Your task to perform on an android device: When is my next meeting? Image 0: 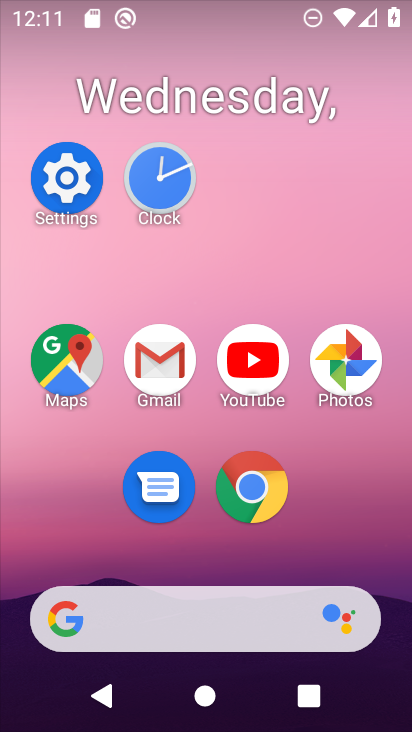
Step 0: drag from (354, 515) to (313, 30)
Your task to perform on an android device: When is my next meeting? Image 1: 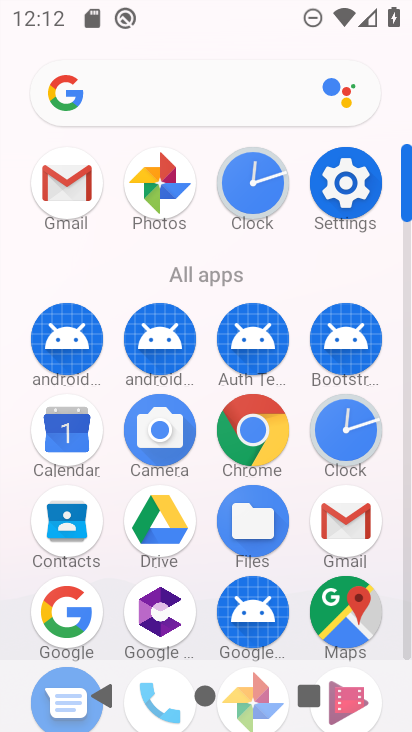
Step 1: drag from (73, 435) to (239, 210)
Your task to perform on an android device: When is my next meeting? Image 2: 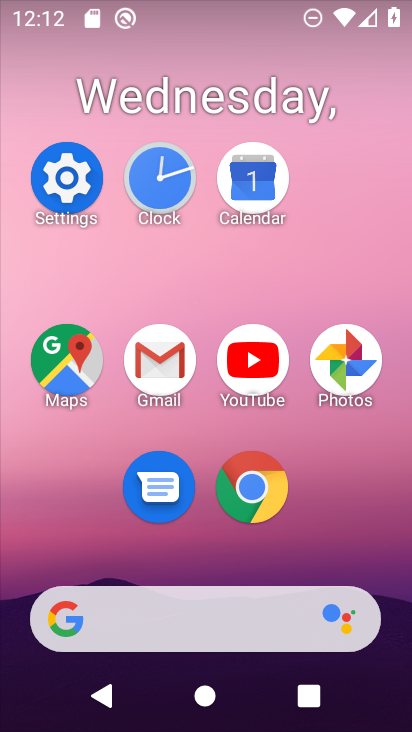
Step 2: click (239, 210)
Your task to perform on an android device: When is my next meeting? Image 3: 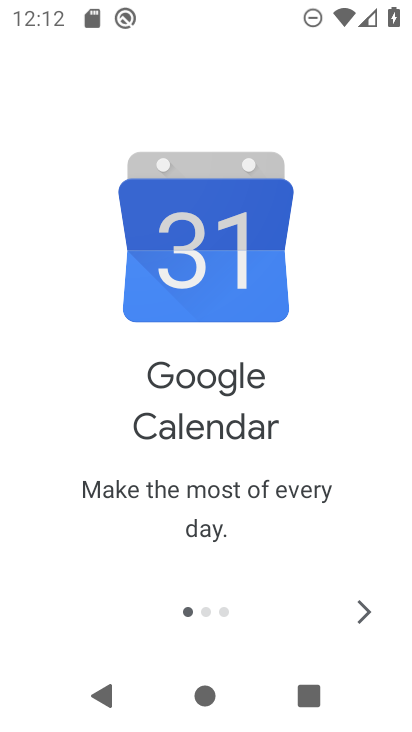
Step 3: click (376, 612)
Your task to perform on an android device: When is my next meeting? Image 4: 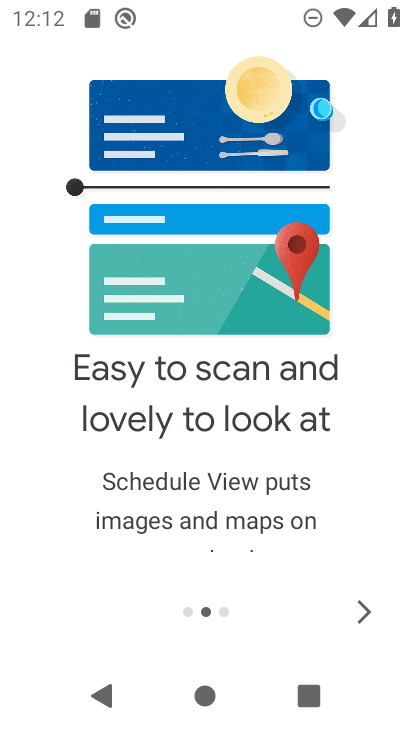
Step 4: click (376, 611)
Your task to perform on an android device: When is my next meeting? Image 5: 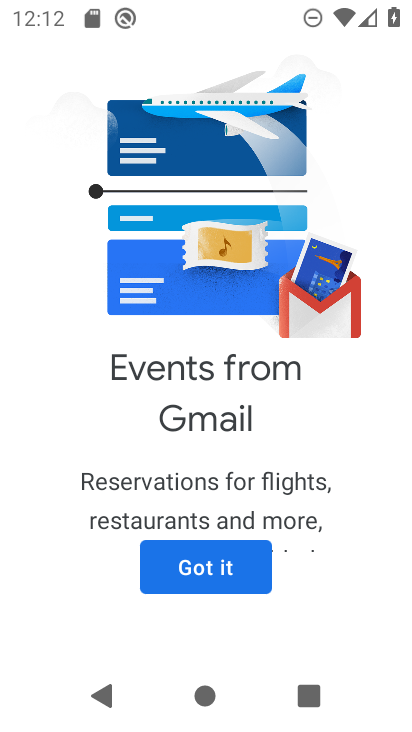
Step 5: click (225, 570)
Your task to perform on an android device: When is my next meeting? Image 6: 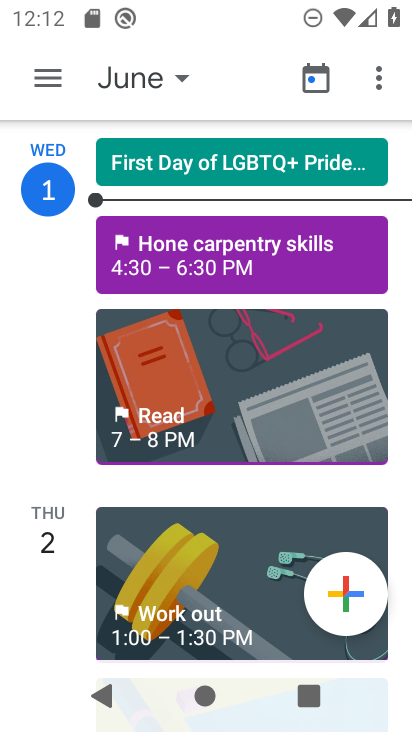
Step 6: click (169, 75)
Your task to perform on an android device: When is my next meeting? Image 7: 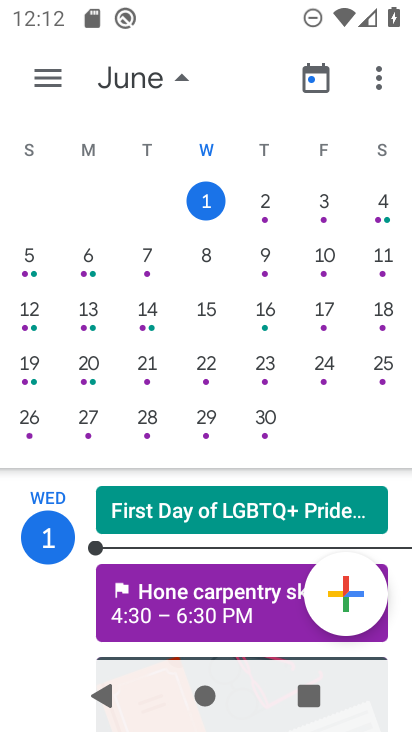
Step 7: click (271, 196)
Your task to perform on an android device: When is my next meeting? Image 8: 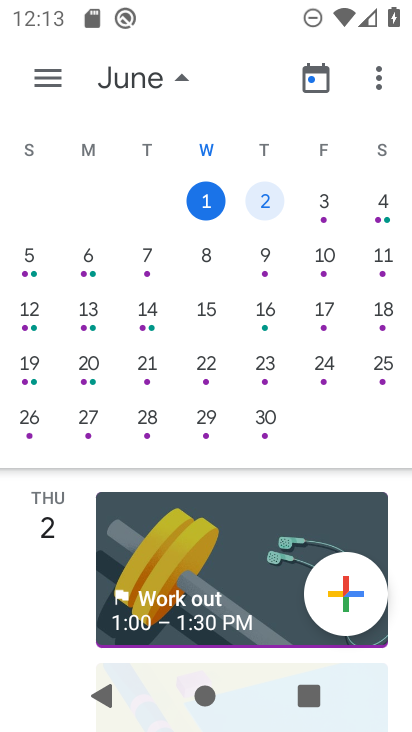
Step 8: click (260, 195)
Your task to perform on an android device: When is my next meeting? Image 9: 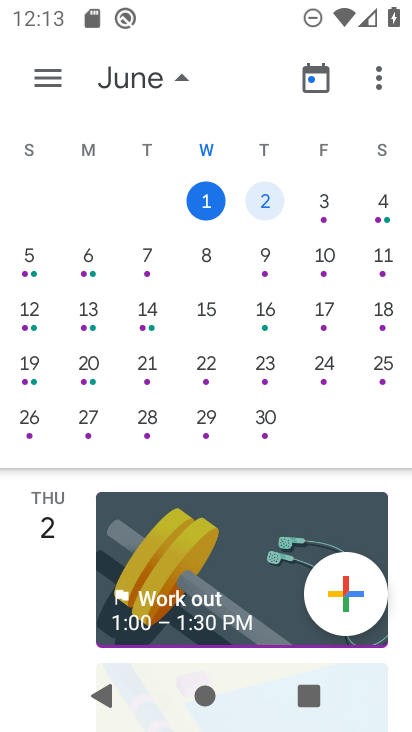
Step 9: click (271, 208)
Your task to perform on an android device: When is my next meeting? Image 10: 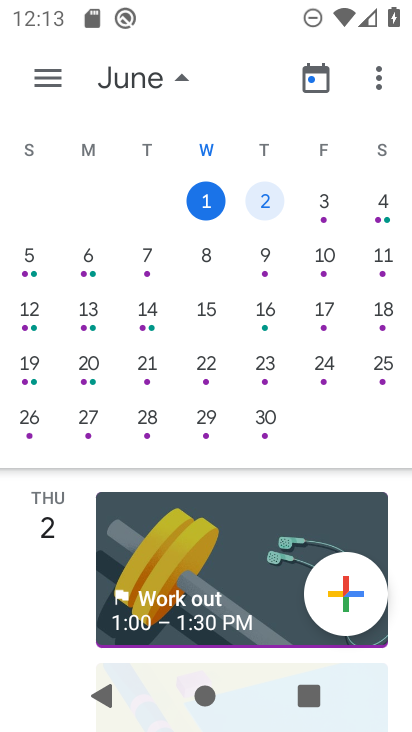
Step 10: click (278, 209)
Your task to perform on an android device: When is my next meeting? Image 11: 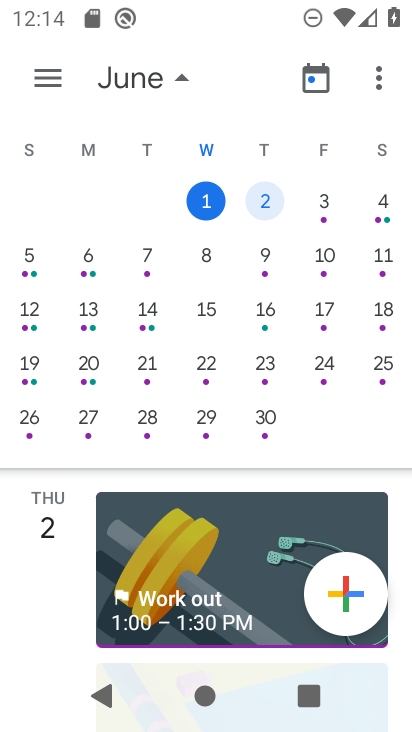
Step 11: task complete